Your task to perform on an android device: turn on wifi Image 0: 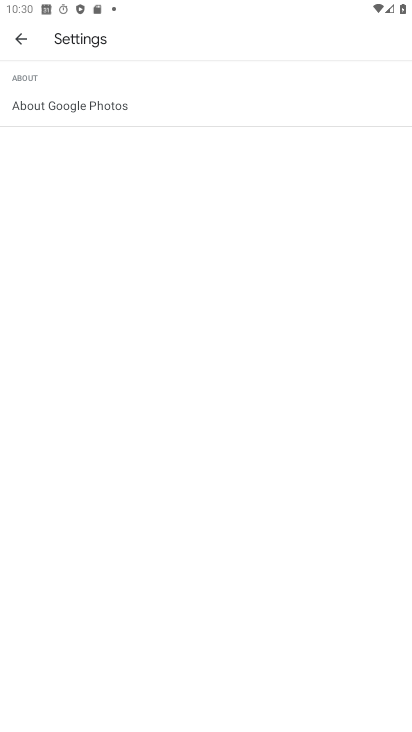
Step 0: drag from (223, 577) to (342, 241)
Your task to perform on an android device: turn on wifi Image 1: 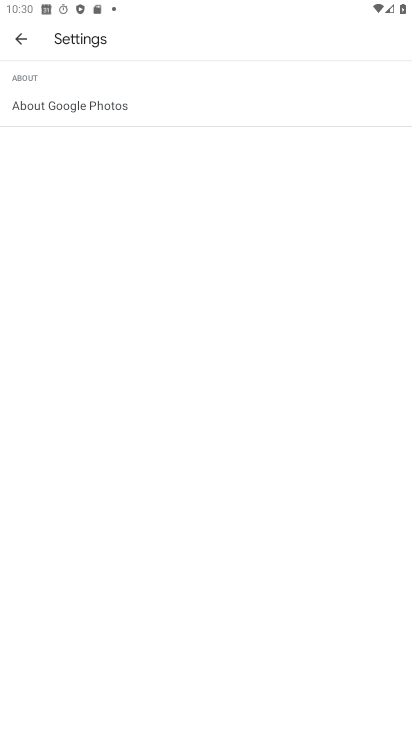
Step 1: press home button
Your task to perform on an android device: turn on wifi Image 2: 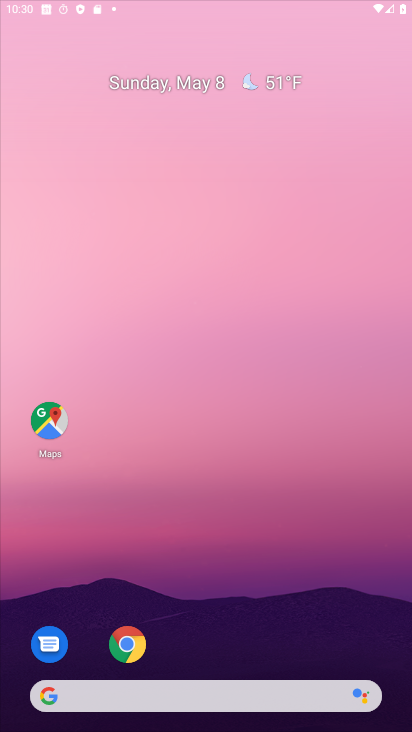
Step 2: drag from (221, 611) to (287, 68)
Your task to perform on an android device: turn on wifi Image 3: 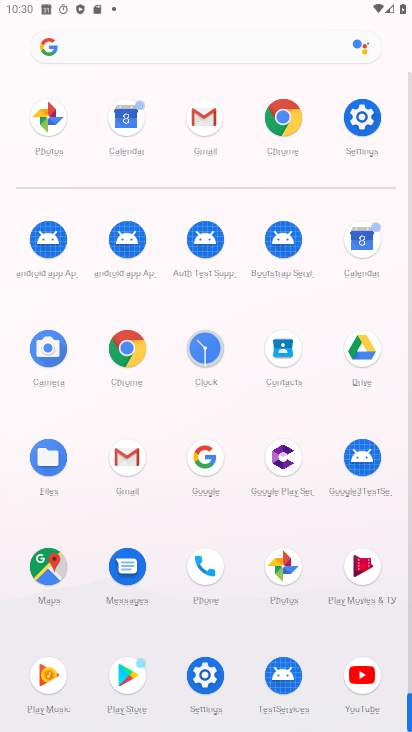
Step 3: click (366, 125)
Your task to perform on an android device: turn on wifi Image 4: 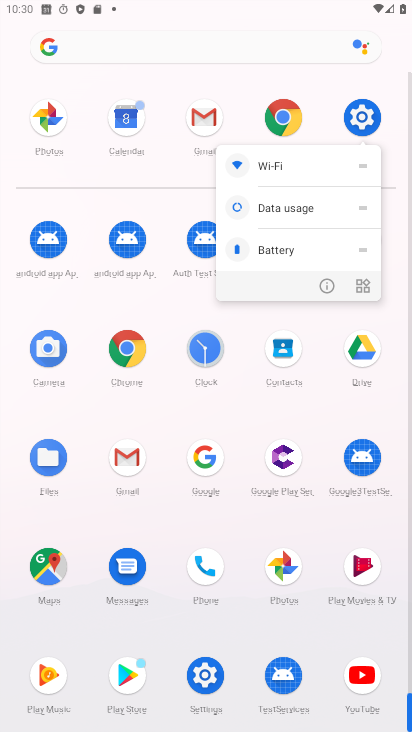
Step 4: click (325, 282)
Your task to perform on an android device: turn on wifi Image 5: 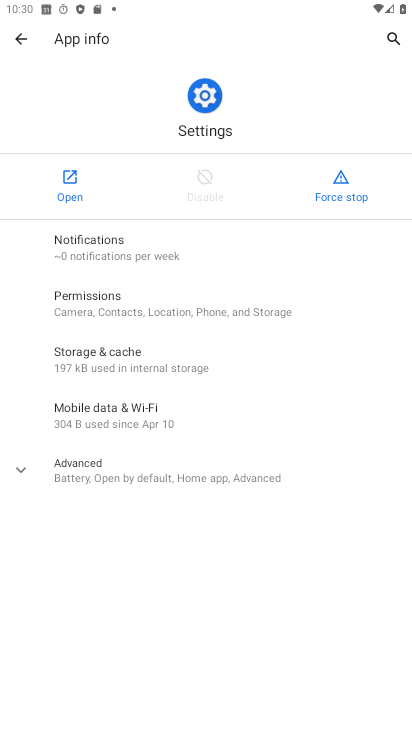
Step 5: click (66, 200)
Your task to perform on an android device: turn on wifi Image 6: 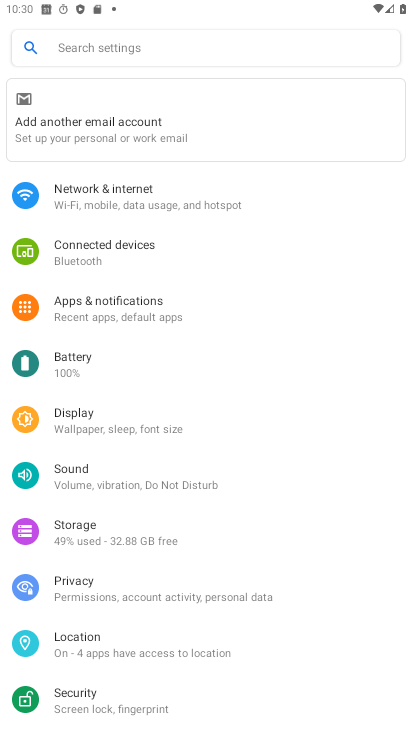
Step 6: click (131, 190)
Your task to perform on an android device: turn on wifi Image 7: 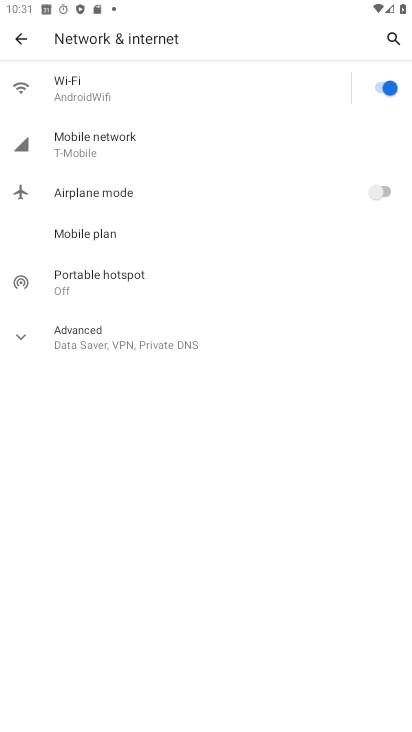
Step 7: click (245, 98)
Your task to perform on an android device: turn on wifi Image 8: 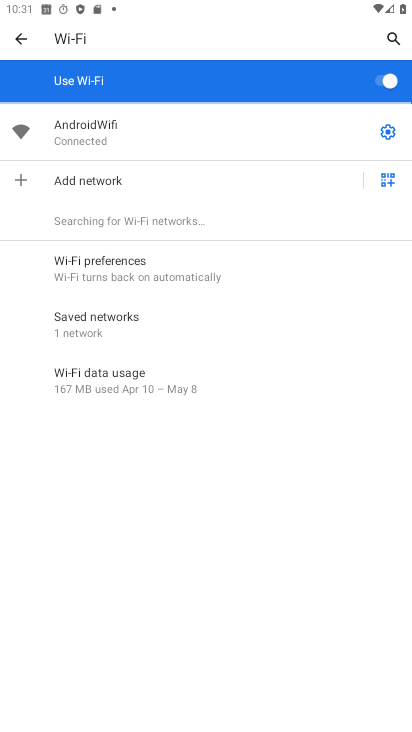
Step 8: task complete